Your task to perform on an android device: Go to Android settings Image 0: 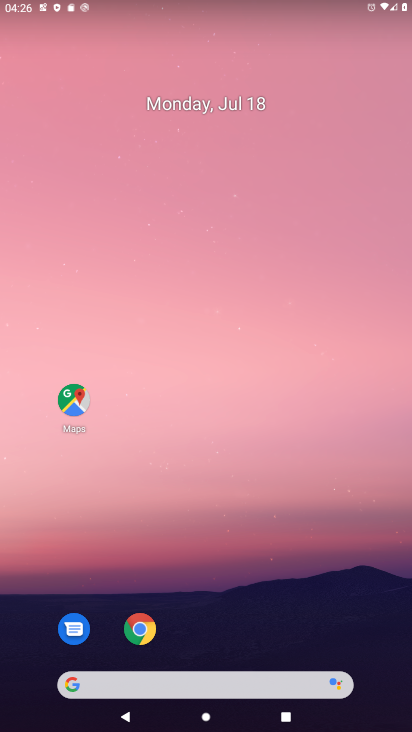
Step 0: click (323, 133)
Your task to perform on an android device: Go to Android settings Image 1: 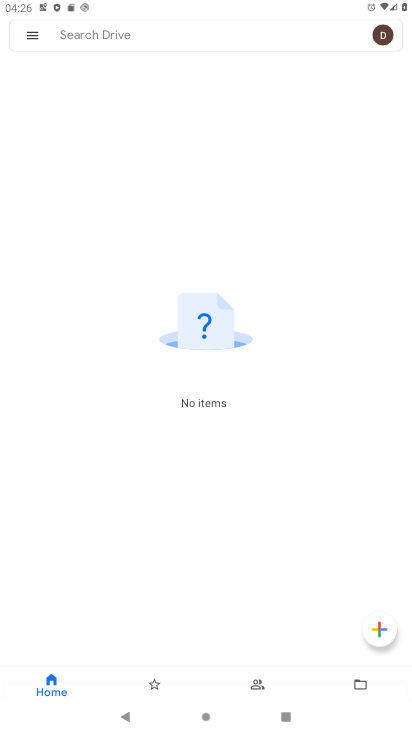
Step 1: press home button
Your task to perform on an android device: Go to Android settings Image 2: 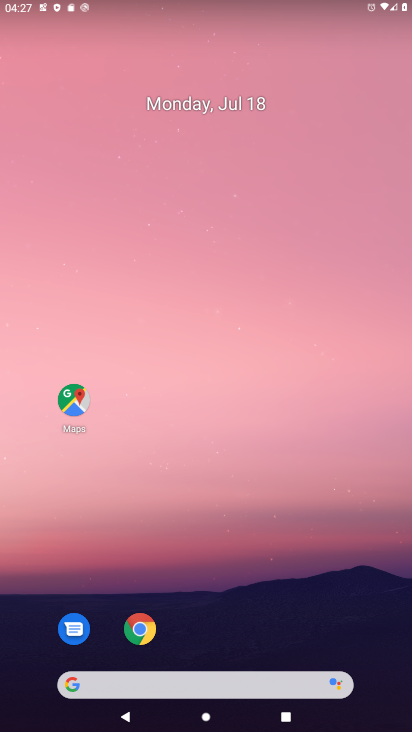
Step 2: drag from (377, 721) to (304, 59)
Your task to perform on an android device: Go to Android settings Image 3: 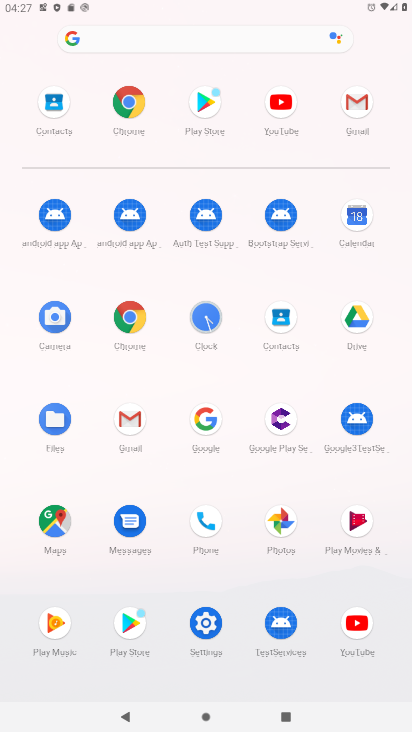
Step 3: click (197, 610)
Your task to perform on an android device: Go to Android settings Image 4: 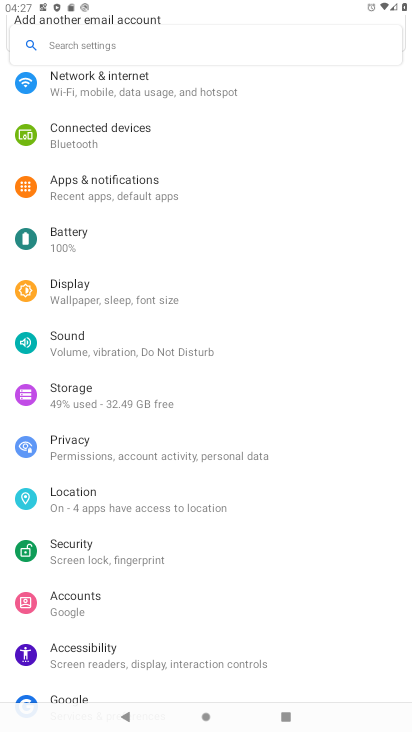
Step 4: task complete